Your task to perform on an android device: Go to wifi settings Image 0: 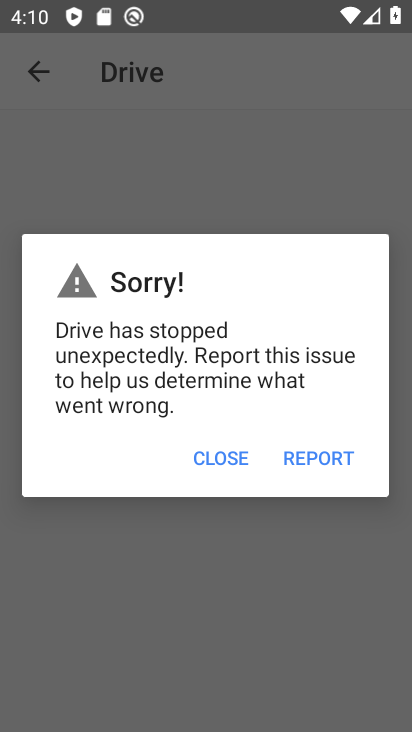
Step 0: press home button
Your task to perform on an android device: Go to wifi settings Image 1: 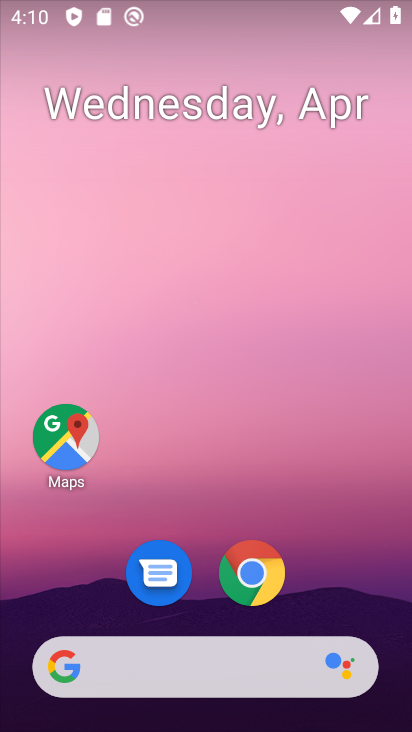
Step 1: drag from (356, 598) to (381, 97)
Your task to perform on an android device: Go to wifi settings Image 2: 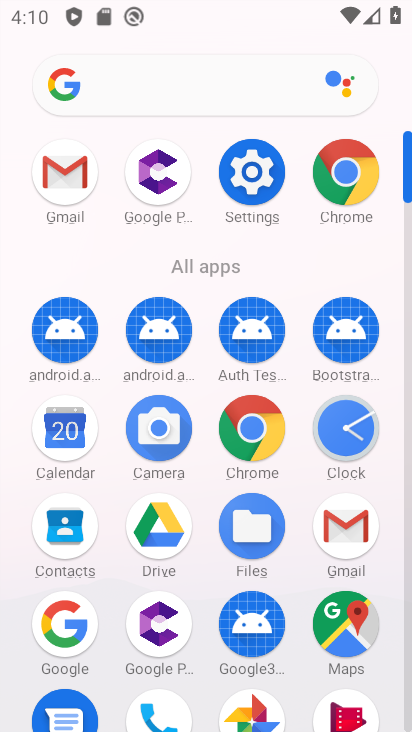
Step 2: click (242, 178)
Your task to perform on an android device: Go to wifi settings Image 3: 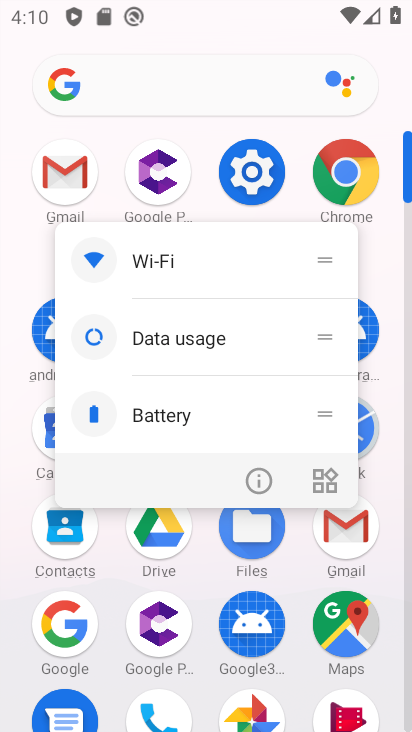
Step 3: click (245, 182)
Your task to perform on an android device: Go to wifi settings Image 4: 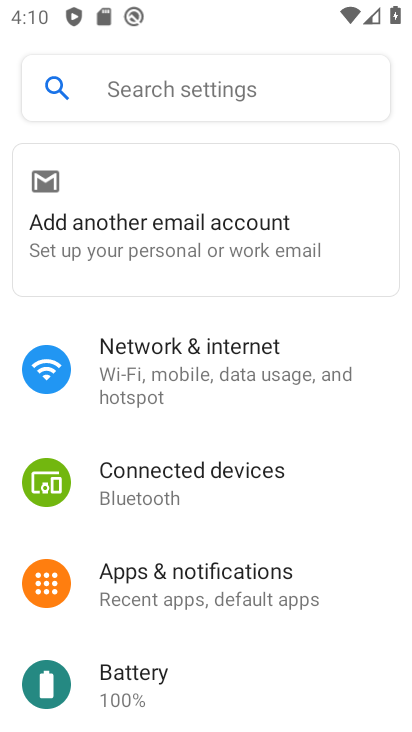
Step 4: click (162, 363)
Your task to perform on an android device: Go to wifi settings Image 5: 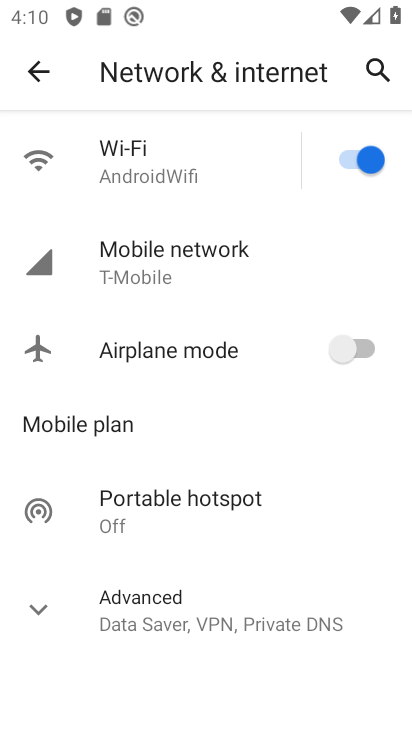
Step 5: click (98, 157)
Your task to perform on an android device: Go to wifi settings Image 6: 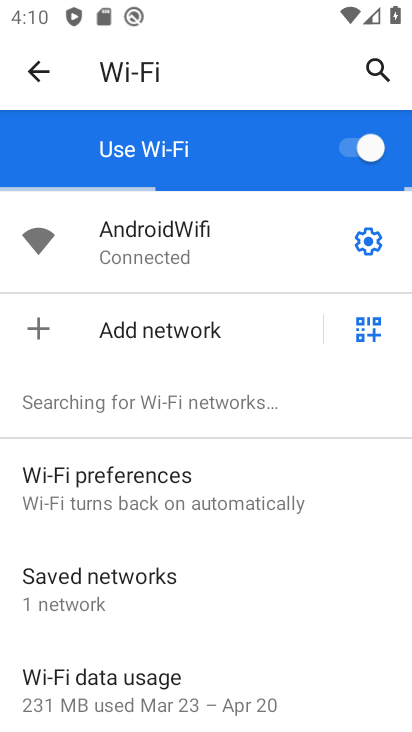
Step 6: task complete